Your task to perform on an android device: What's the weather going to be this weekend? Image 0: 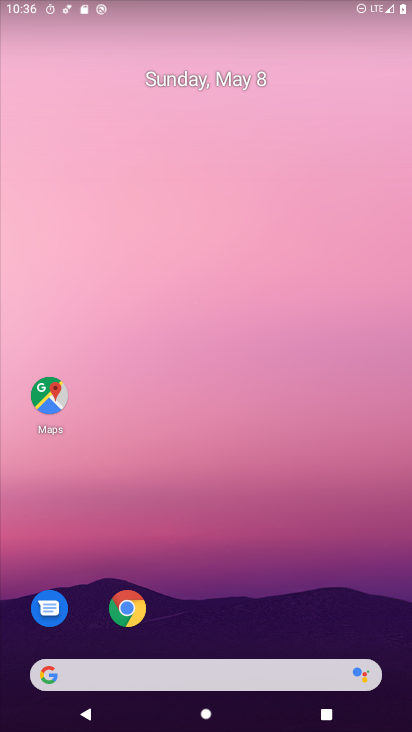
Step 0: click (129, 605)
Your task to perform on an android device: What's the weather going to be this weekend? Image 1: 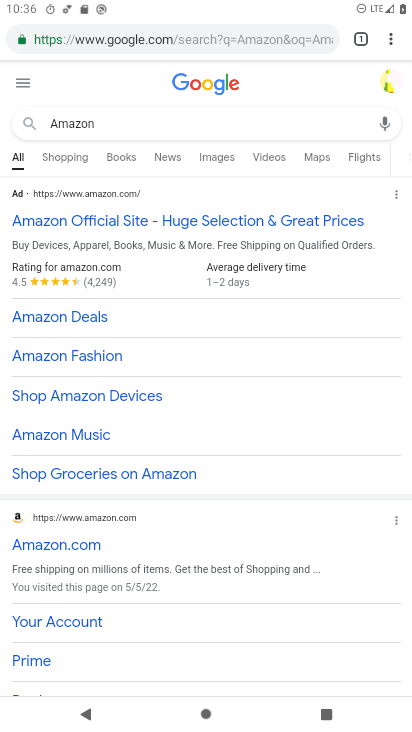
Step 1: click (121, 32)
Your task to perform on an android device: What's the weather going to be this weekend? Image 2: 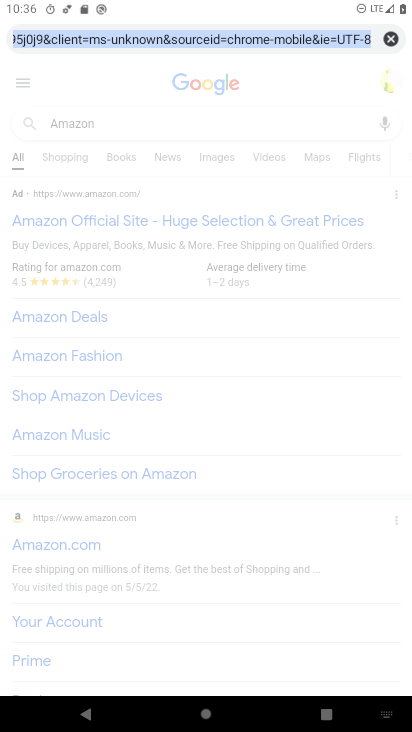
Step 2: type "What's the weather going to be this weekend?"
Your task to perform on an android device: What's the weather going to be this weekend? Image 3: 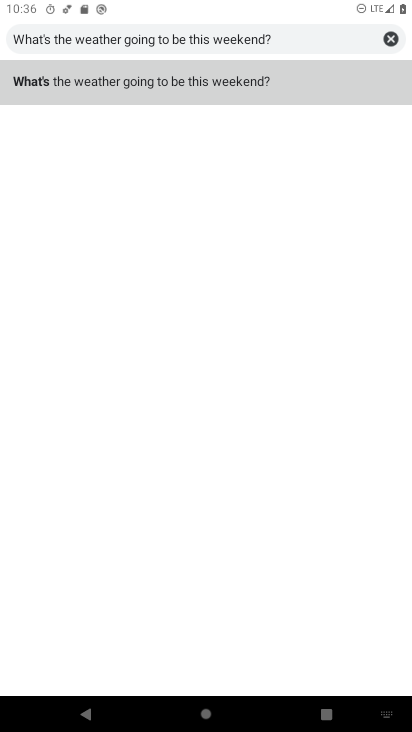
Step 3: click (257, 83)
Your task to perform on an android device: What's the weather going to be this weekend? Image 4: 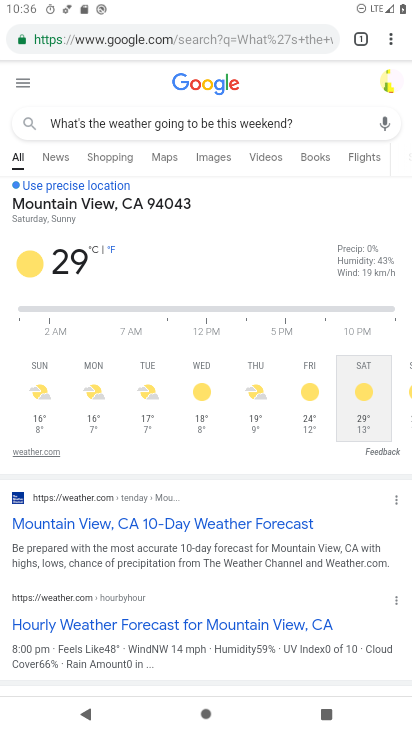
Step 4: task complete